Your task to perform on an android device: change the clock style Image 0: 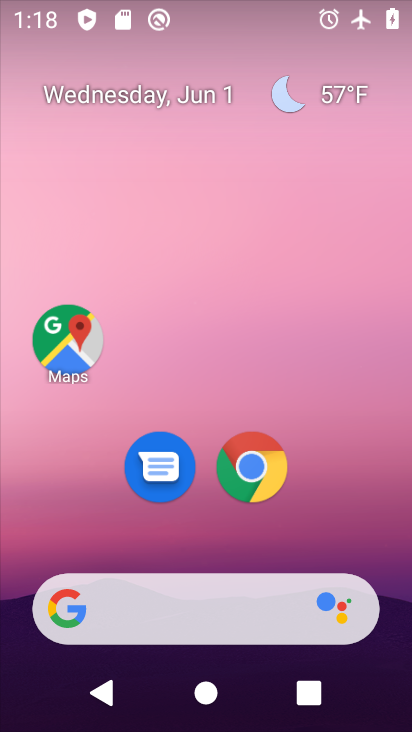
Step 0: drag from (377, 480) to (384, 146)
Your task to perform on an android device: change the clock style Image 1: 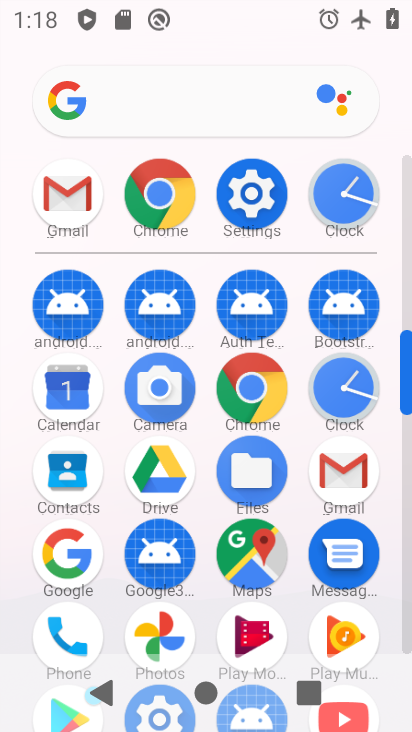
Step 1: click (353, 394)
Your task to perform on an android device: change the clock style Image 2: 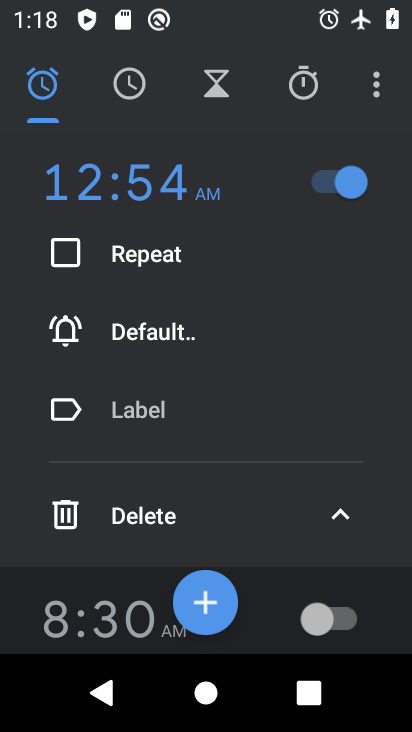
Step 2: click (378, 95)
Your task to perform on an android device: change the clock style Image 3: 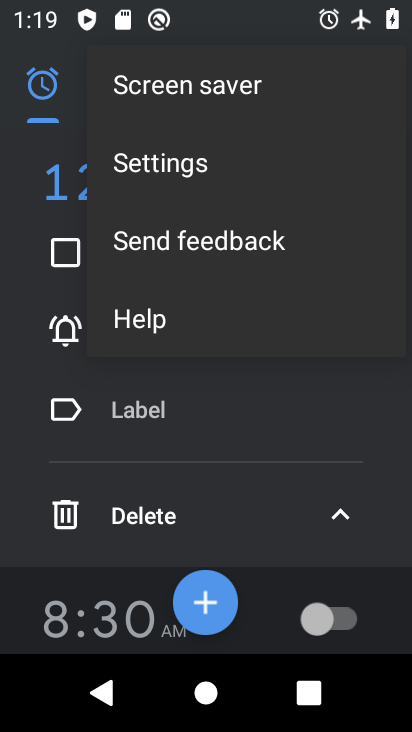
Step 3: click (208, 161)
Your task to perform on an android device: change the clock style Image 4: 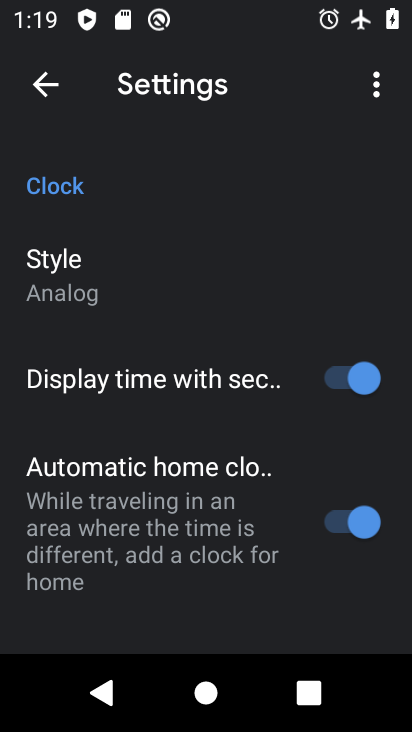
Step 4: drag from (298, 589) to (283, 316)
Your task to perform on an android device: change the clock style Image 5: 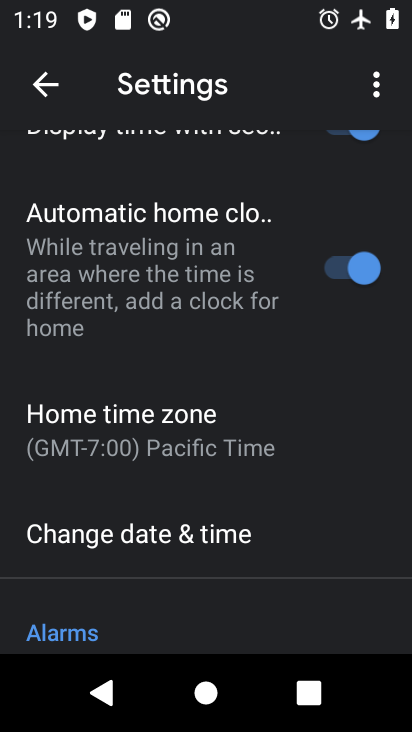
Step 5: drag from (303, 539) to (310, 321)
Your task to perform on an android device: change the clock style Image 6: 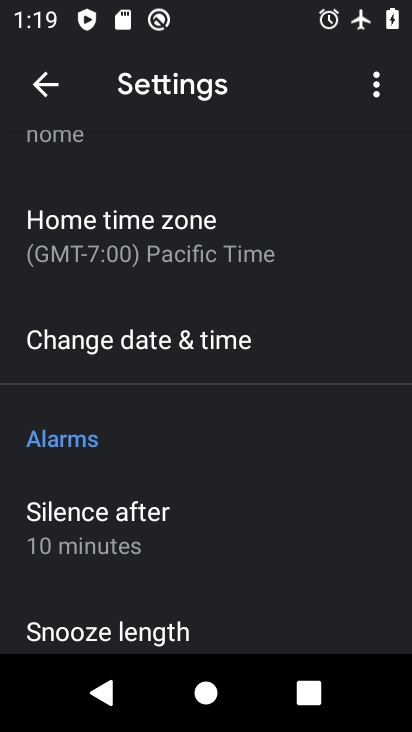
Step 6: drag from (319, 458) to (335, 294)
Your task to perform on an android device: change the clock style Image 7: 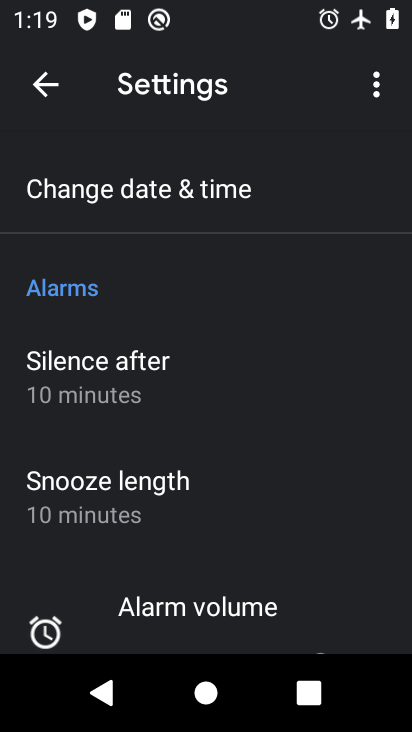
Step 7: drag from (342, 276) to (336, 459)
Your task to perform on an android device: change the clock style Image 8: 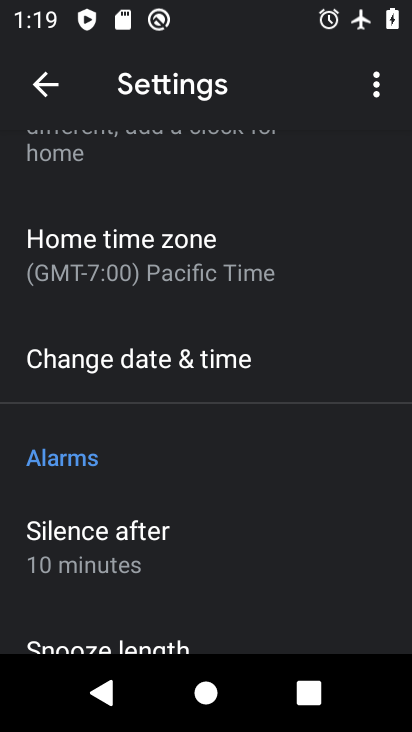
Step 8: drag from (345, 238) to (333, 438)
Your task to perform on an android device: change the clock style Image 9: 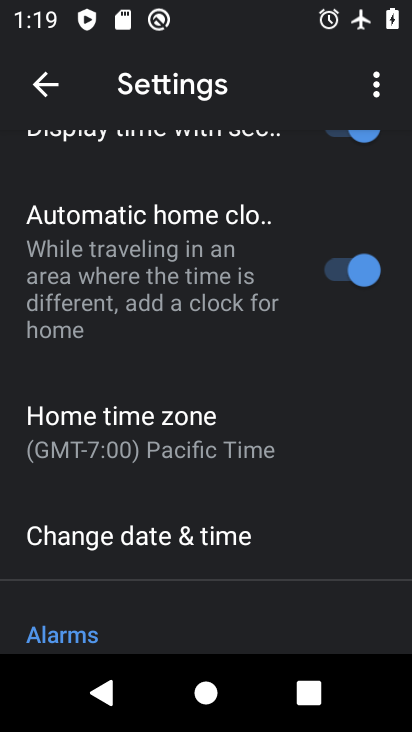
Step 9: drag from (299, 258) to (301, 394)
Your task to perform on an android device: change the clock style Image 10: 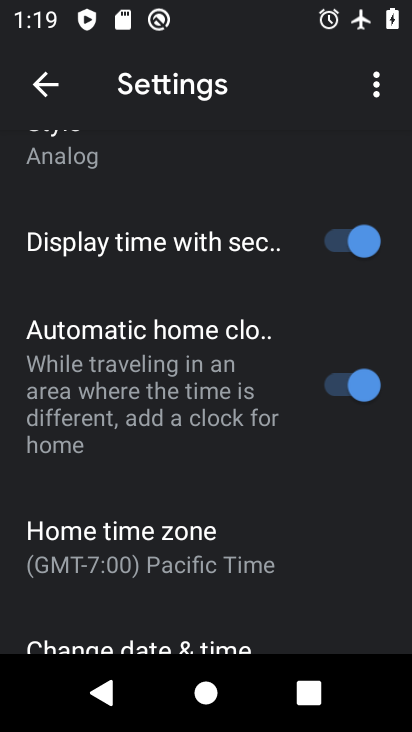
Step 10: drag from (289, 207) to (292, 362)
Your task to perform on an android device: change the clock style Image 11: 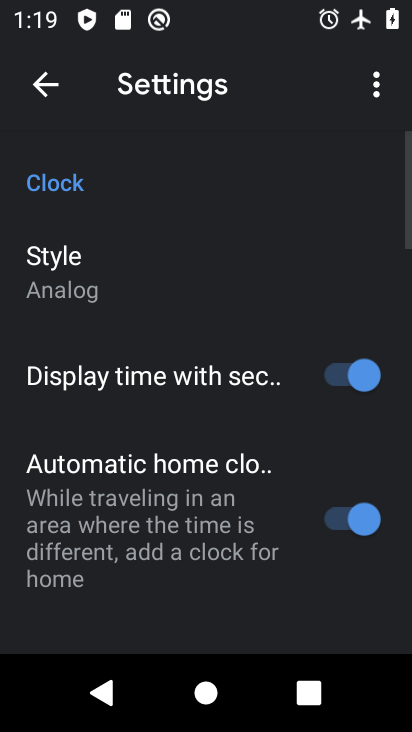
Step 11: click (101, 280)
Your task to perform on an android device: change the clock style Image 12: 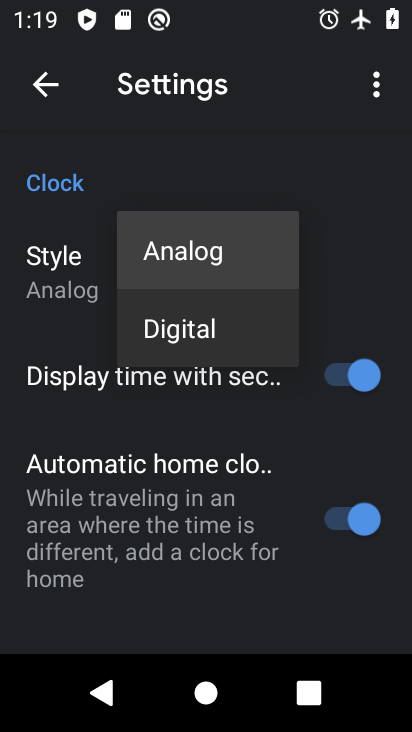
Step 12: click (209, 334)
Your task to perform on an android device: change the clock style Image 13: 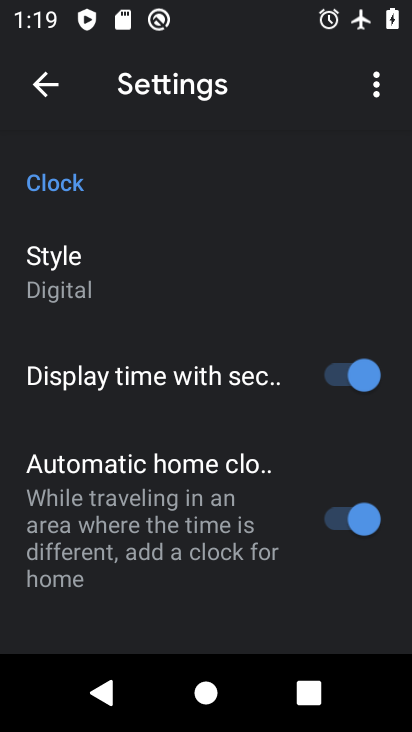
Step 13: task complete